Your task to perform on an android device: change the clock style Image 0: 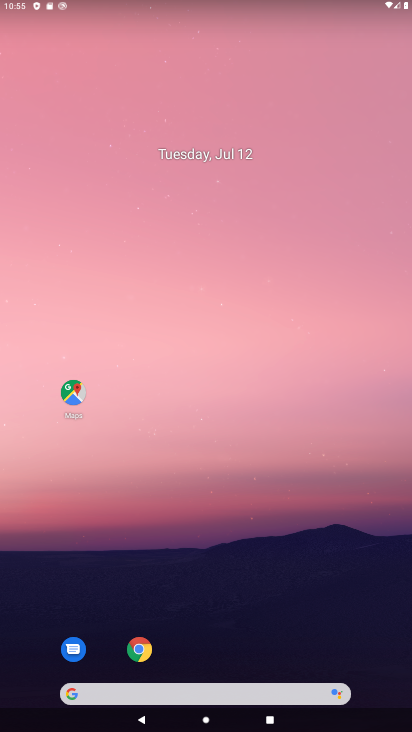
Step 0: drag from (233, 666) to (216, 396)
Your task to perform on an android device: change the clock style Image 1: 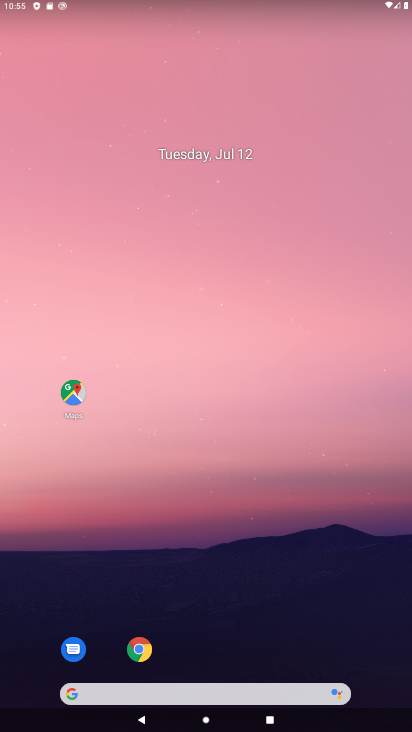
Step 1: drag from (235, 652) to (288, 55)
Your task to perform on an android device: change the clock style Image 2: 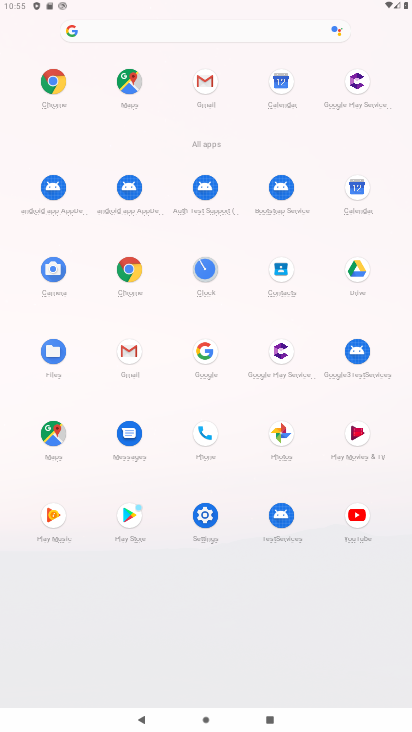
Step 2: click (216, 264)
Your task to perform on an android device: change the clock style Image 3: 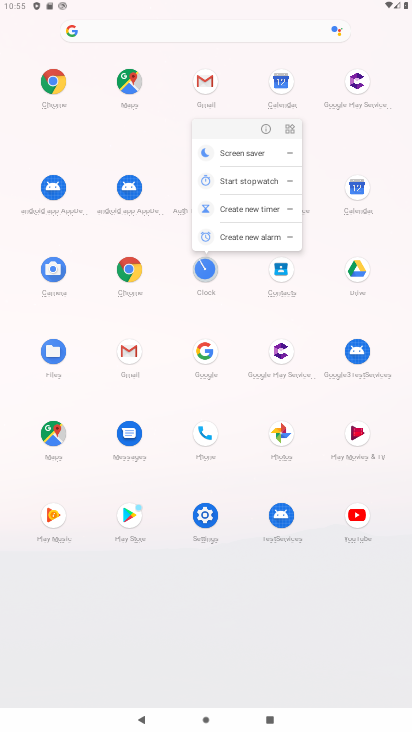
Step 3: click (216, 264)
Your task to perform on an android device: change the clock style Image 4: 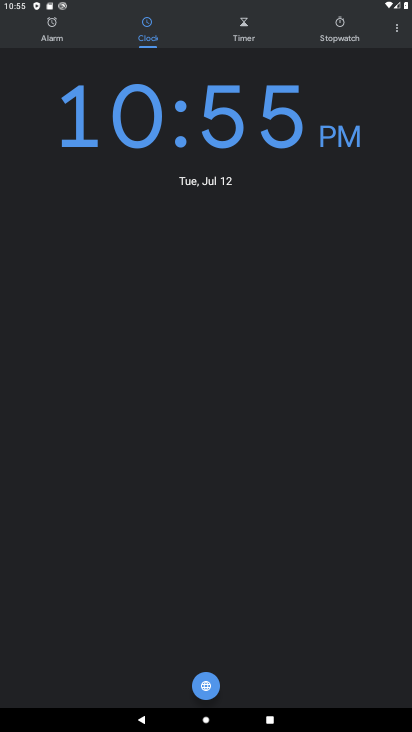
Step 4: click (403, 24)
Your task to perform on an android device: change the clock style Image 5: 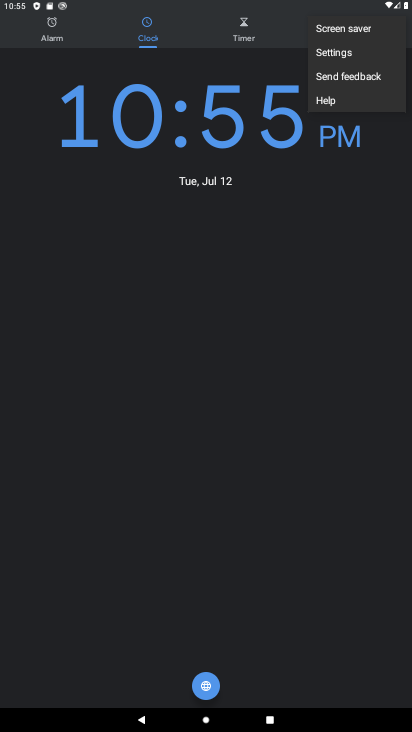
Step 5: click (319, 61)
Your task to perform on an android device: change the clock style Image 6: 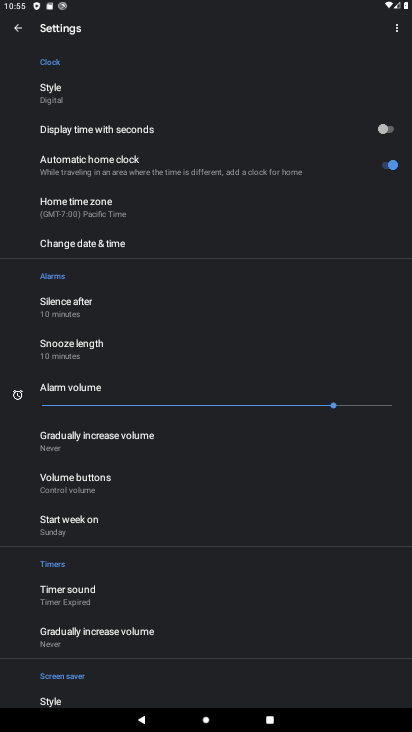
Step 6: click (54, 106)
Your task to perform on an android device: change the clock style Image 7: 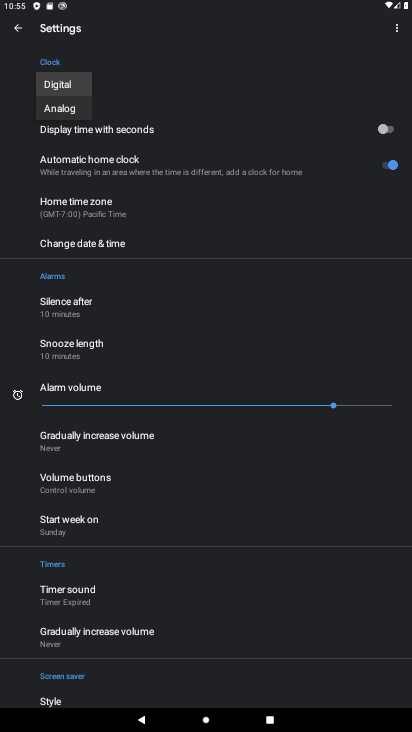
Step 7: click (59, 112)
Your task to perform on an android device: change the clock style Image 8: 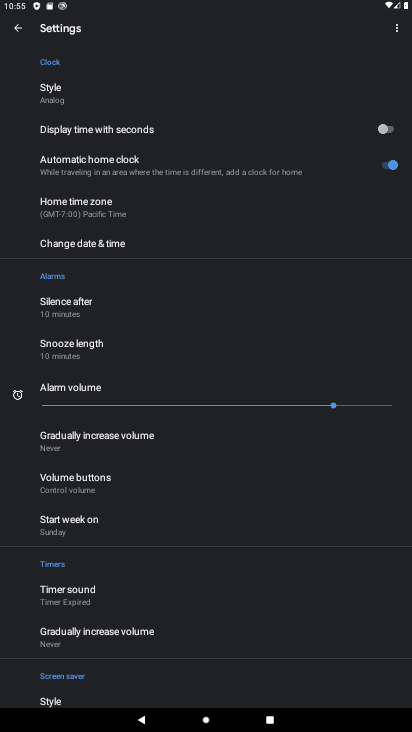
Step 8: task complete